Your task to perform on an android device: change text size in settings app Image 0: 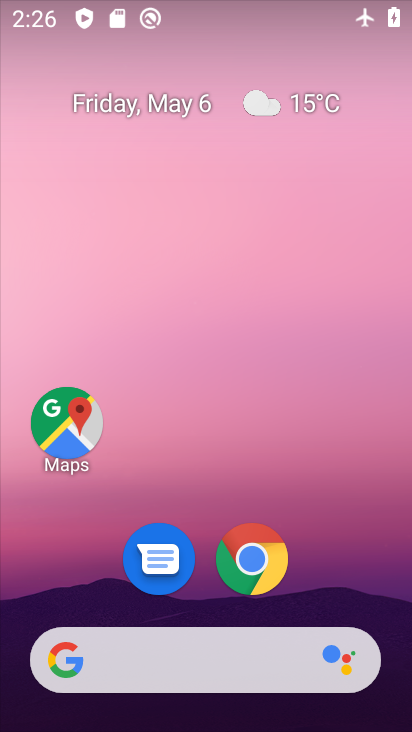
Step 0: drag from (336, 562) to (326, 202)
Your task to perform on an android device: change text size in settings app Image 1: 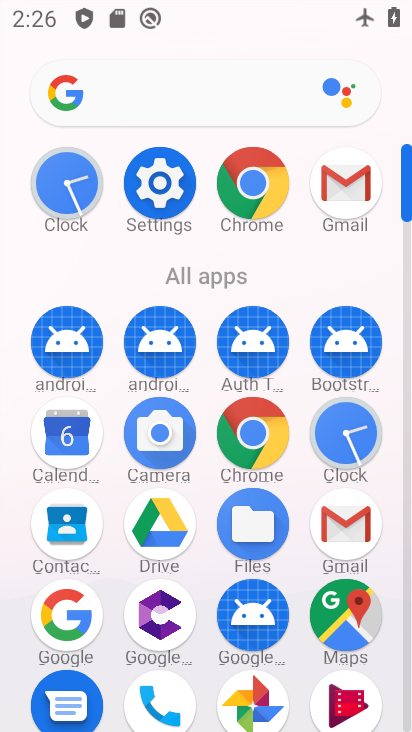
Step 1: click (167, 179)
Your task to perform on an android device: change text size in settings app Image 2: 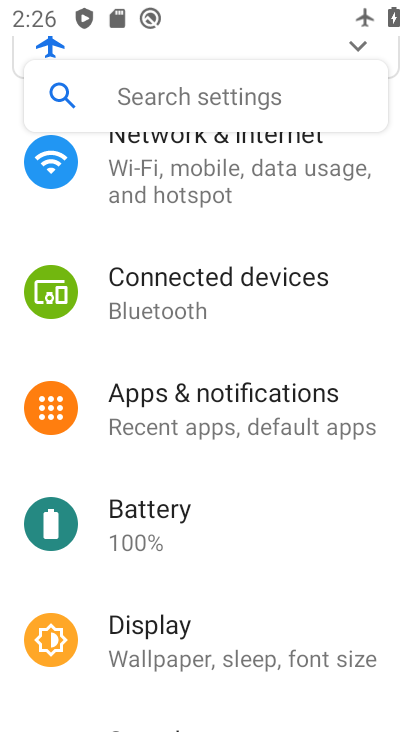
Step 2: drag from (272, 602) to (287, 344)
Your task to perform on an android device: change text size in settings app Image 3: 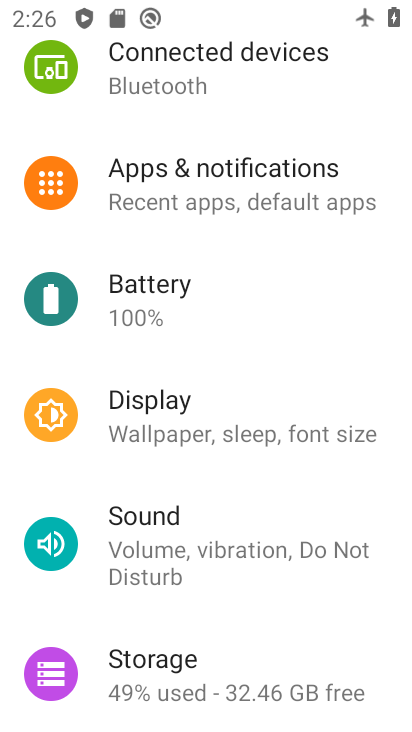
Step 3: click (240, 435)
Your task to perform on an android device: change text size in settings app Image 4: 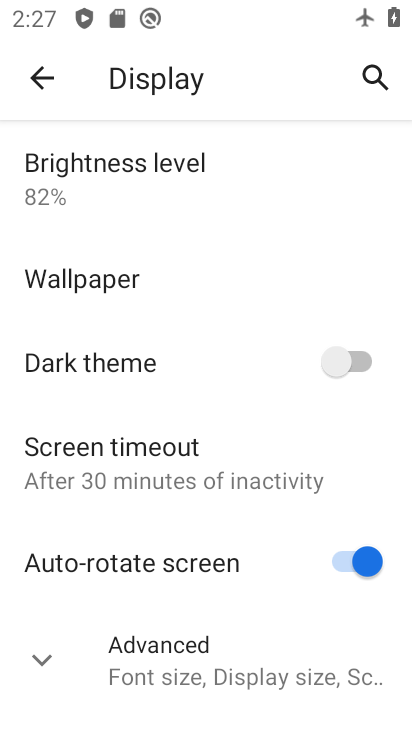
Step 4: click (219, 684)
Your task to perform on an android device: change text size in settings app Image 5: 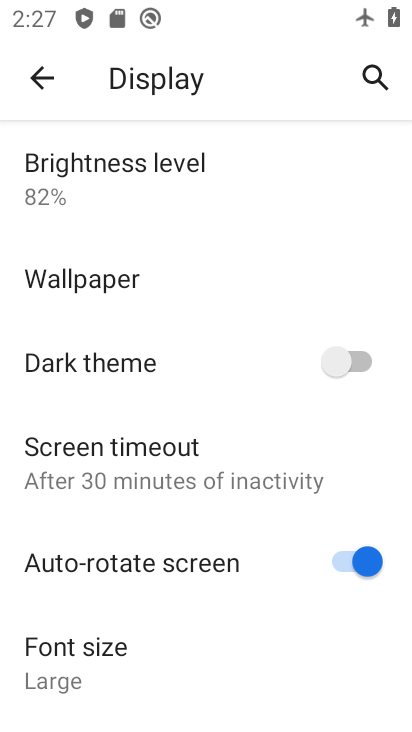
Step 5: click (194, 485)
Your task to perform on an android device: change text size in settings app Image 6: 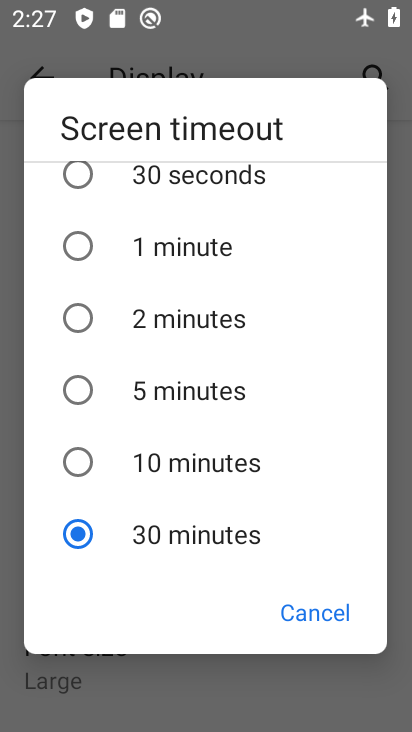
Step 6: click (314, 635)
Your task to perform on an android device: change text size in settings app Image 7: 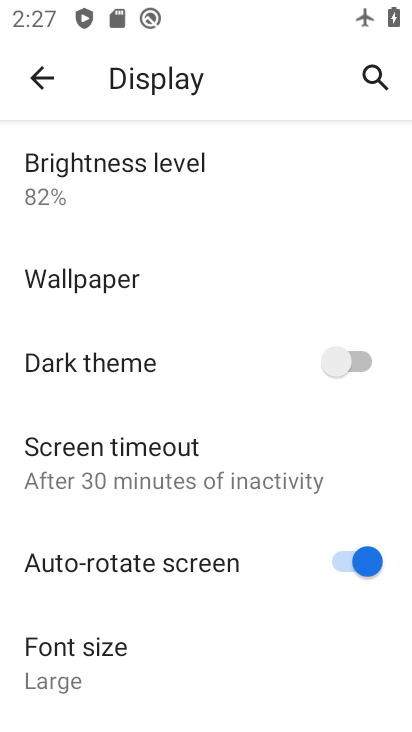
Step 7: click (163, 635)
Your task to perform on an android device: change text size in settings app Image 8: 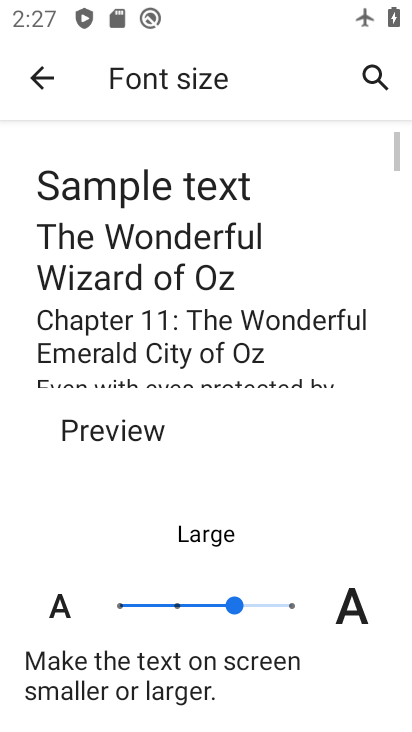
Step 8: click (174, 597)
Your task to perform on an android device: change text size in settings app Image 9: 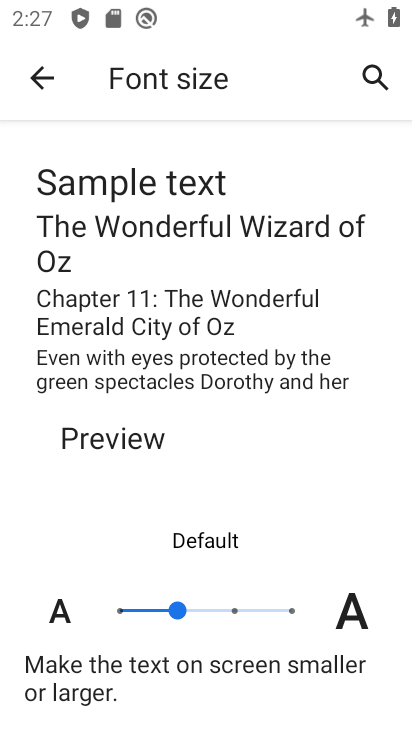
Step 9: task complete